Your task to perform on an android device: turn on improve location accuracy Image 0: 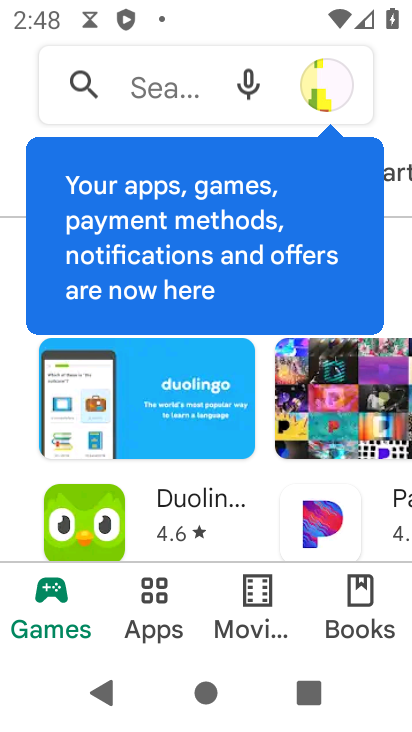
Step 0: press back button
Your task to perform on an android device: turn on improve location accuracy Image 1: 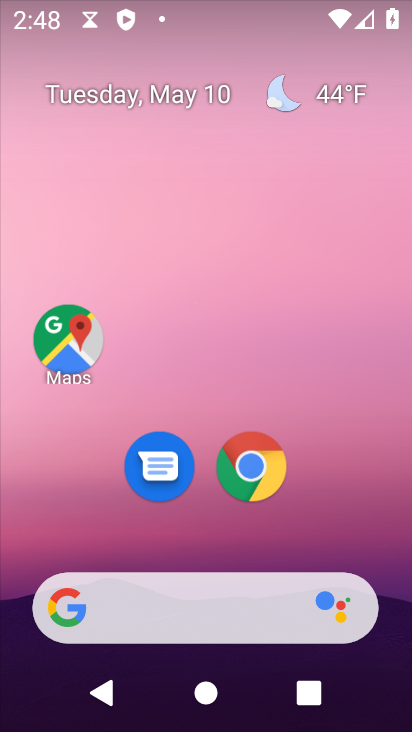
Step 1: drag from (350, 501) to (284, 17)
Your task to perform on an android device: turn on improve location accuracy Image 2: 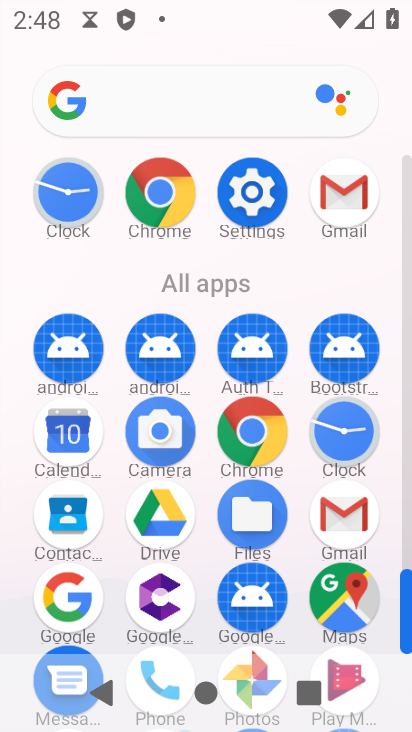
Step 2: click (249, 194)
Your task to perform on an android device: turn on improve location accuracy Image 3: 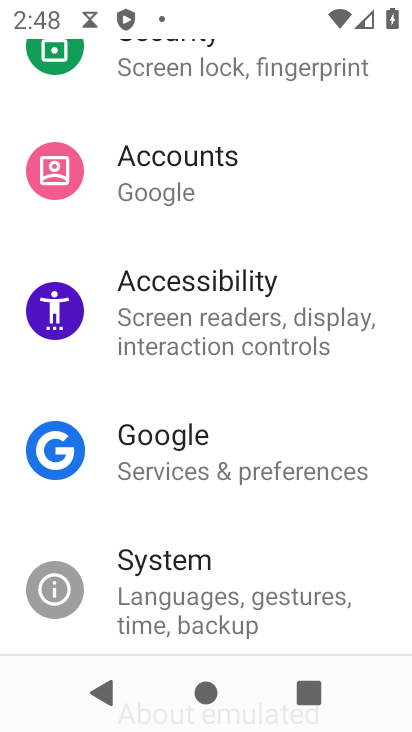
Step 3: drag from (263, 258) to (255, 383)
Your task to perform on an android device: turn on improve location accuracy Image 4: 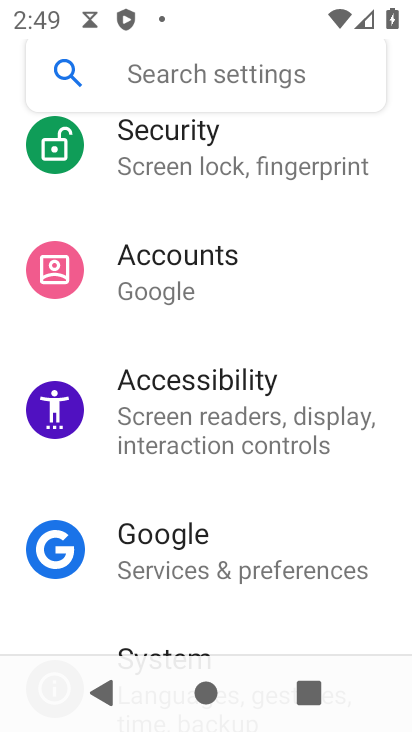
Step 4: drag from (244, 217) to (237, 360)
Your task to perform on an android device: turn on improve location accuracy Image 5: 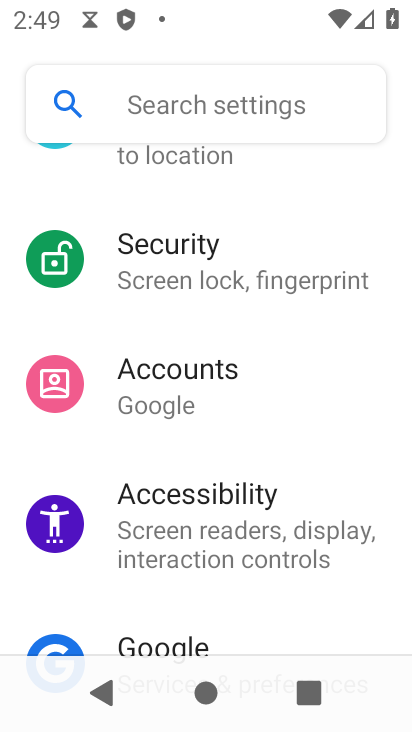
Step 5: drag from (220, 213) to (220, 385)
Your task to perform on an android device: turn on improve location accuracy Image 6: 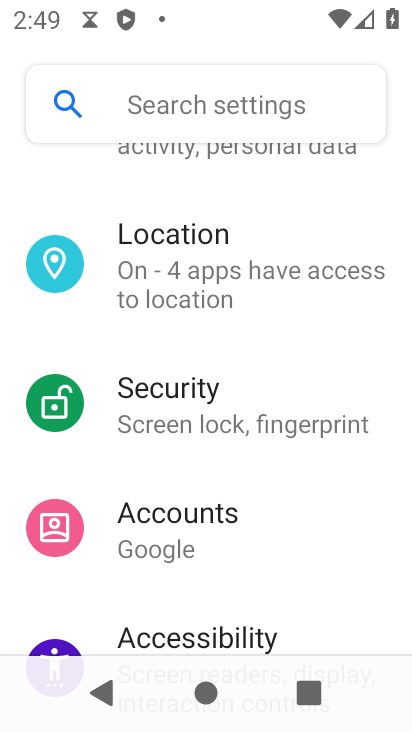
Step 6: click (179, 234)
Your task to perform on an android device: turn on improve location accuracy Image 7: 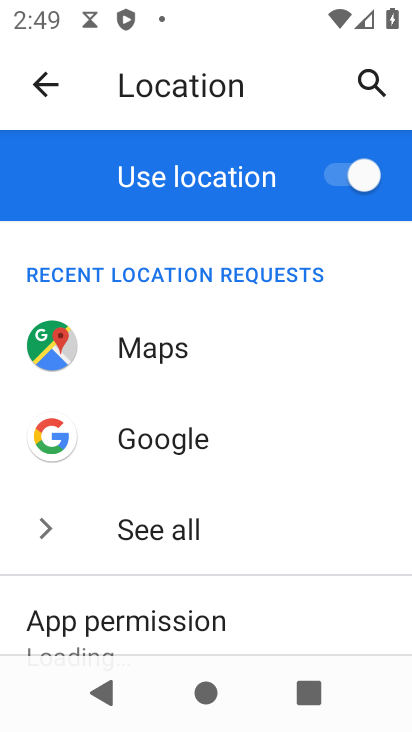
Step 7: drag from (183, 593) to (201, 468)
Your task to perform on an android device: turn on improve location accuracy Image 8: 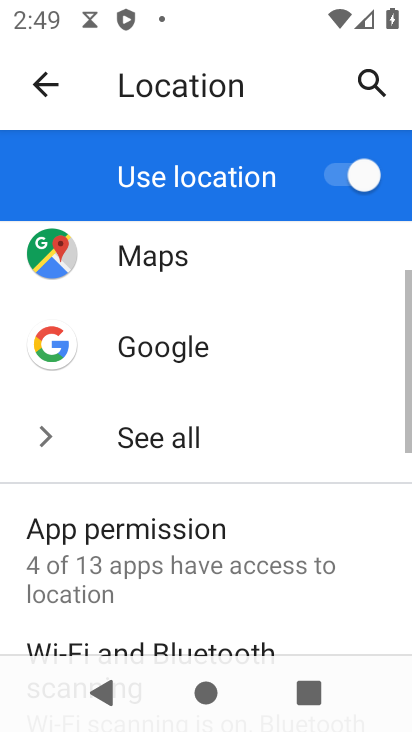
Step 8: drag from (157, 575) to (210, 414)
Your task to perform on an android device: turn on improve location accuracy Image 9: 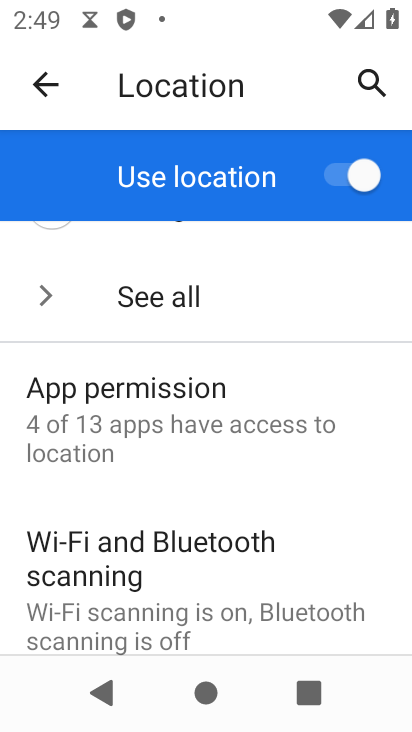
Step 9: drag from (191, 554) to (232, 385)
Your task to perform on an android device: turn on improve location accuracy Image 10: 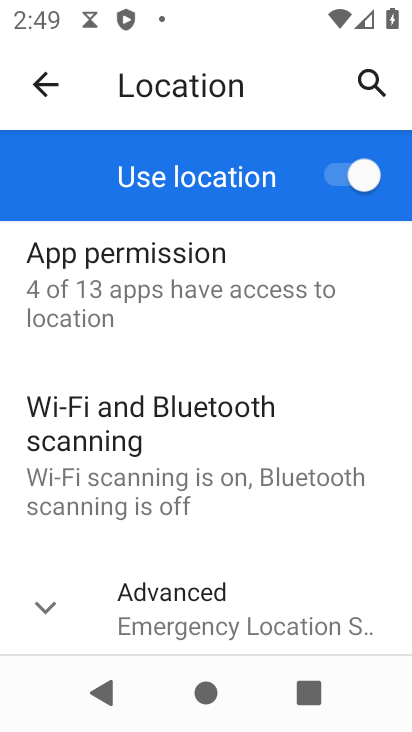
Step 10: click (187, 601)
Your task to perform on an android device: turn on improve location accuracy Image 11: 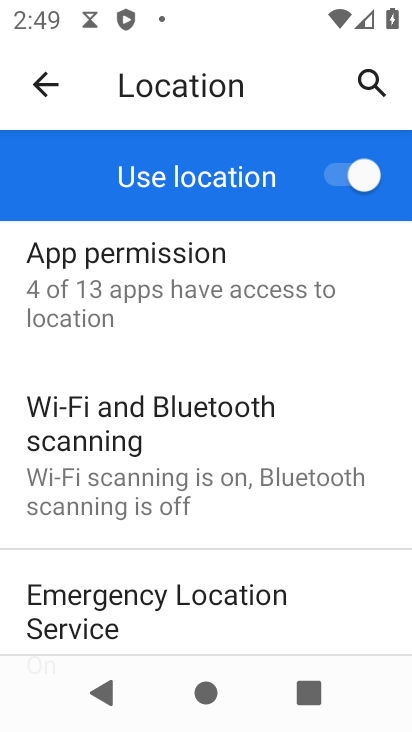
Step 11: drag from (187, 601) to (243, 415)
Your task to perform on an android device: turn on improve location accuracy Image 12: 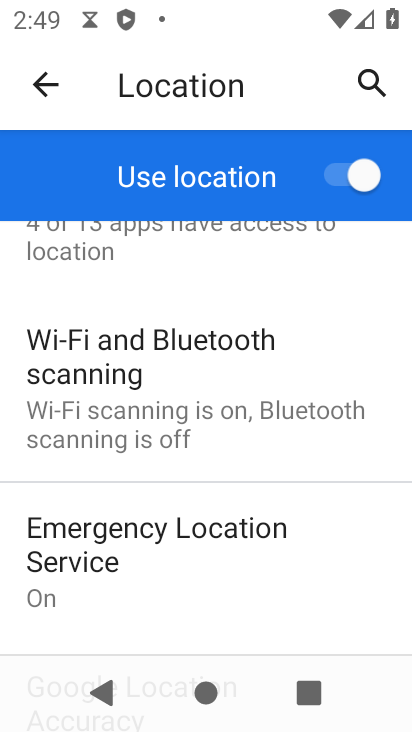
Step 12: drag from (164, 578) to (233, 386)
Your task to perform on an android device: turn on improve location accuracy Image 13: 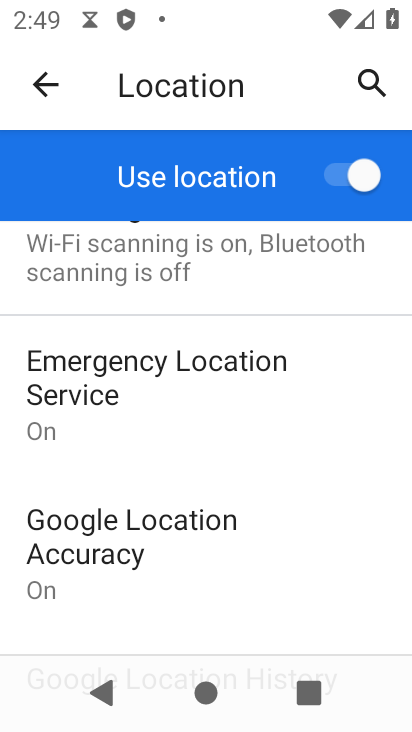
Step 13: click (110, 533)
Your task to perform on an android device: turn on improve location accuracy Image 14: 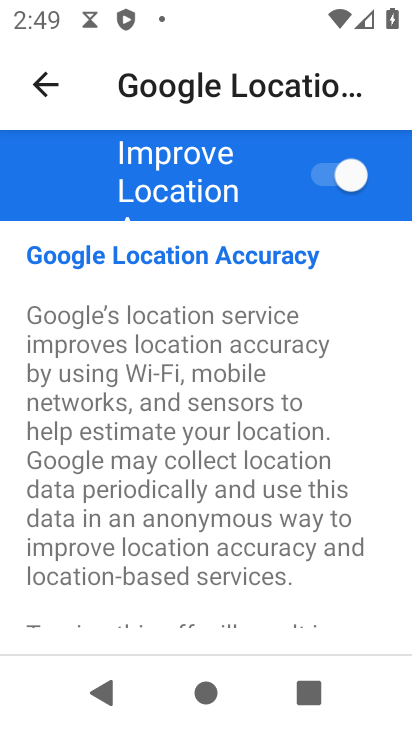
Step 14: task complete